Your task to perform on an android device: turn on priority inbox in the gmail app Image 0: 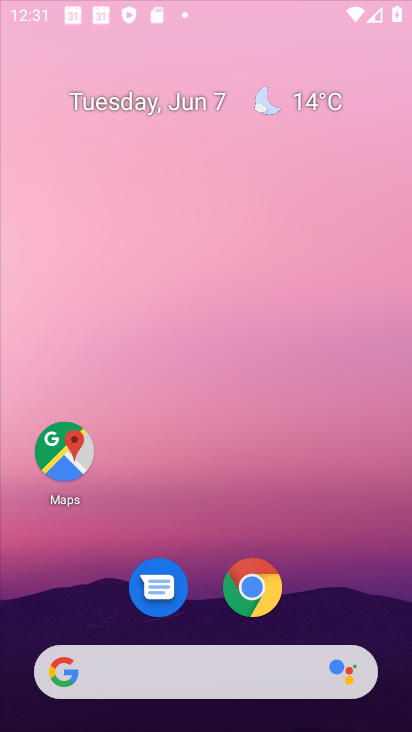
Step 0: click (255, 368)
Your task to perform on an android device: turn on priority inbox in the gmail app Image 1: 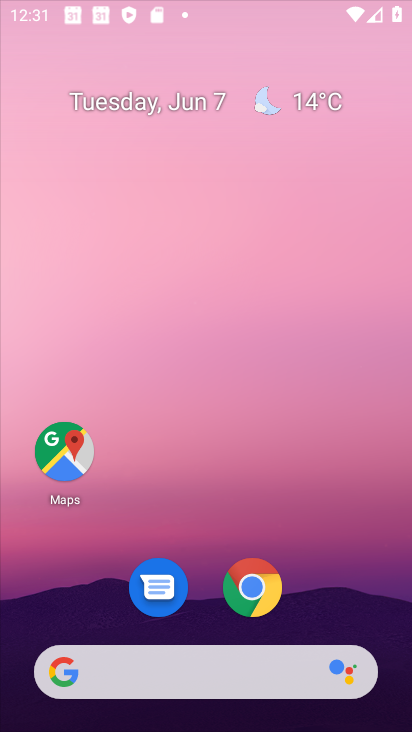
Step 1: press home button
Your task to perform on an android device: turn on priority inbox in the gmail app Image 2: 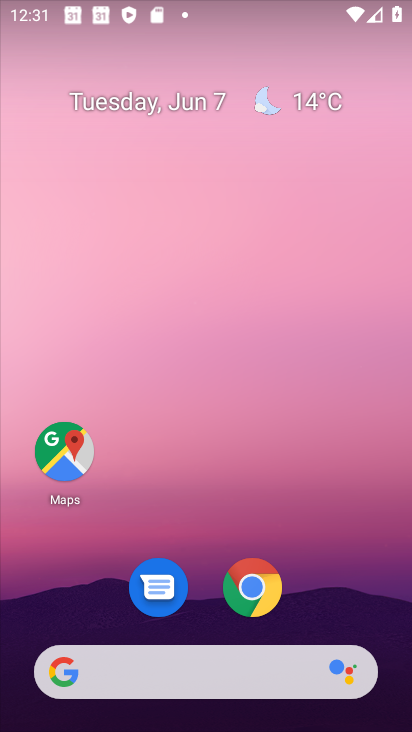
Step 2: drag from (198, 643) to (253, 225)
Your task to perform on an android device: turn on priority inbox in the gmail app Image 3: 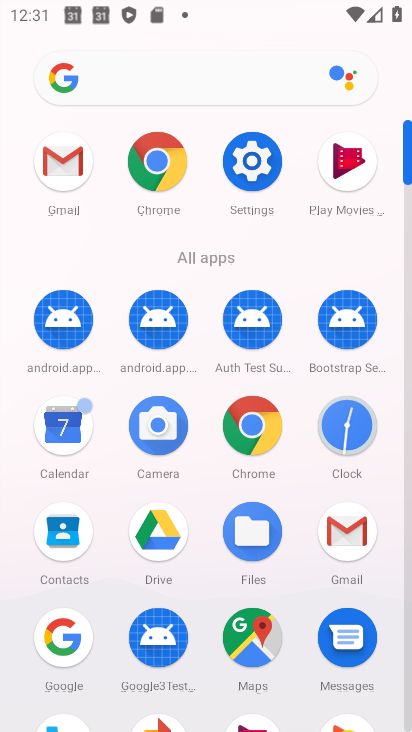
Step 3: click (360, 536)
Your task to perform on an android device: turn on priority inbox in the gmail app Image 4: 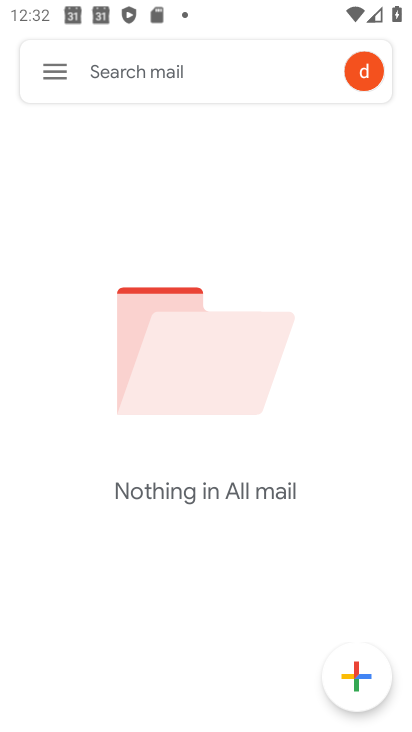
Step 4: task complete